Your task to perform on an android device: all mails in gmail Image 0: 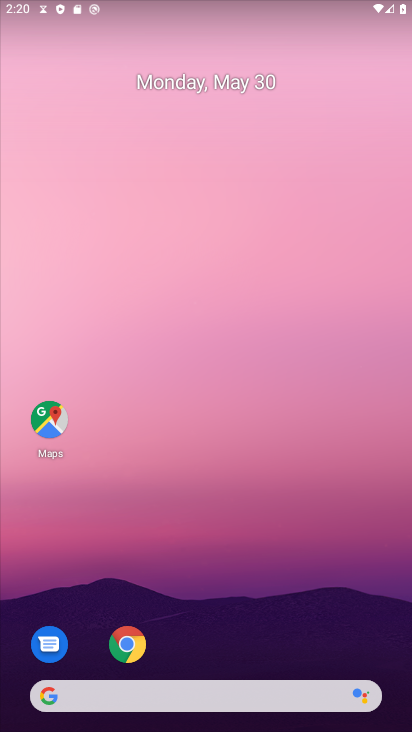
Step 0: press home button
Your task to perform on an android device: all mails in gmail Image 1: 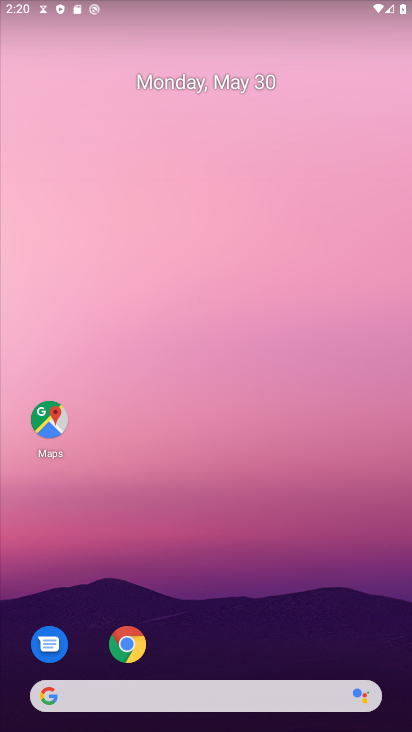
Step 1: drag from (343, 631) to (325, 232)
Your task to perform on an android device: all mails in gmail Image 2: 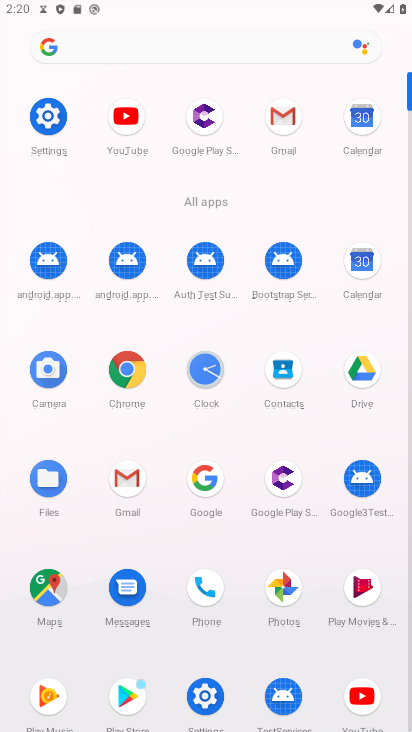
Step 2: click (249, 112)
Your task to perform on an android device: all mails in gmail Image 3: 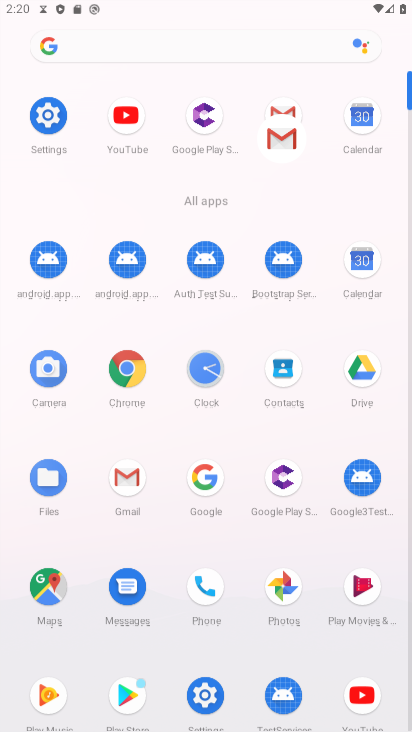
Step 3: click (287, 120)
Your task to perform on an android device: all mails in gmail Image 4: 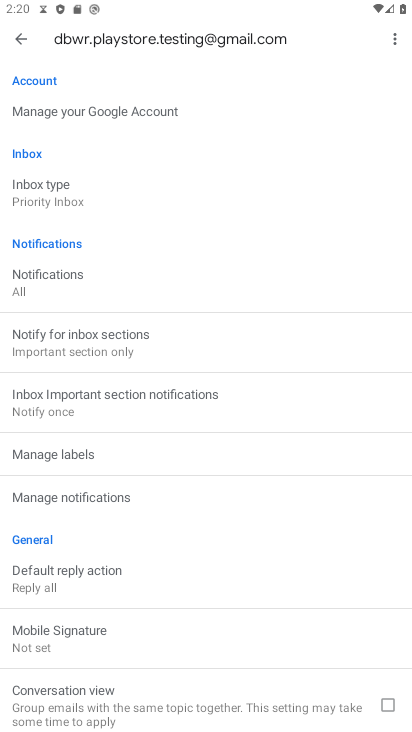
Step 4: press back button
Your task to perform on an android device: all mails in gmail Image 5: 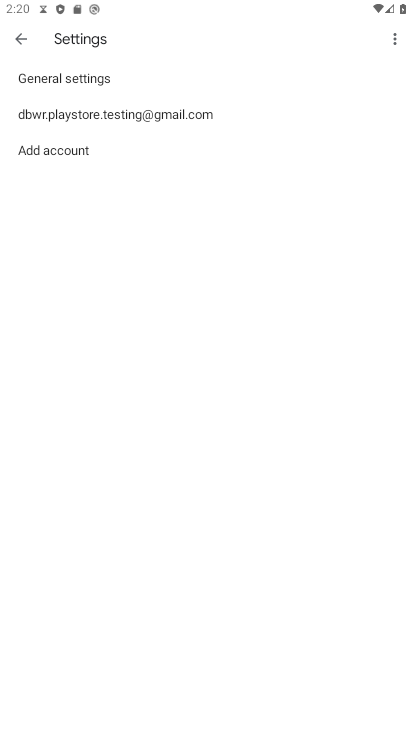
Step 5: press back button
Your task to perform on an android device: all mails in gmail Image 6: 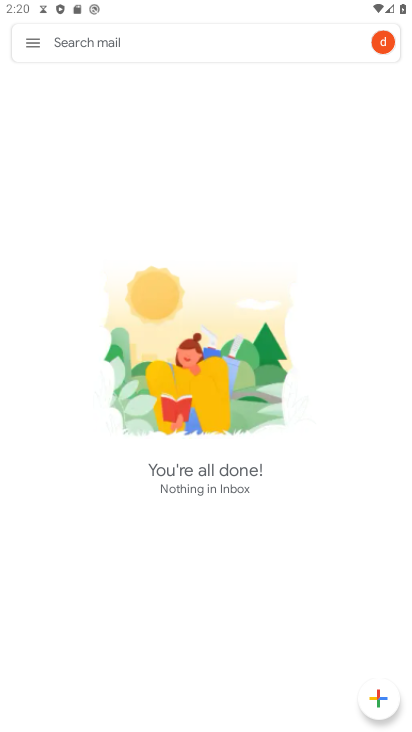
Step 6: click (31, 39)
Your task to perform on an android device: all mails in gmail Image 7: 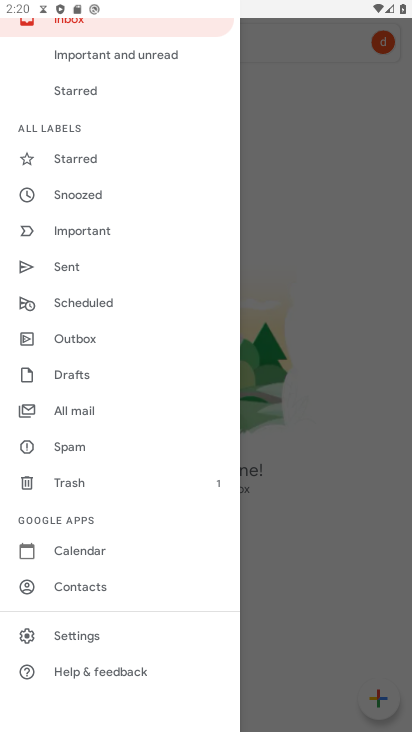
Step 7: click (63, 408)
Your task to perform on an android device: all mails in gmail Image 8: 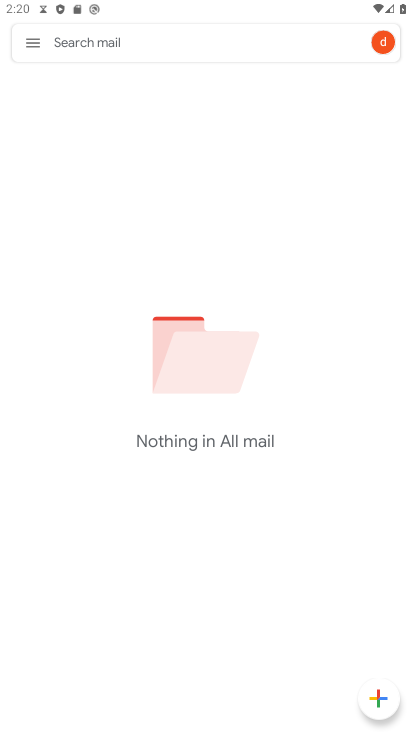
Step 8: task complete